Your task to perform on an android device: change the clock display to digital Image 0: 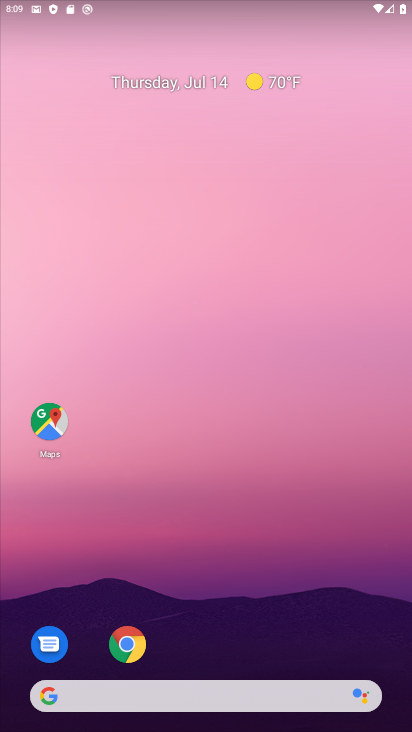
Step 0: click (224, 105)
Your task to perform on an android device: change the clock display to digital Image 1: 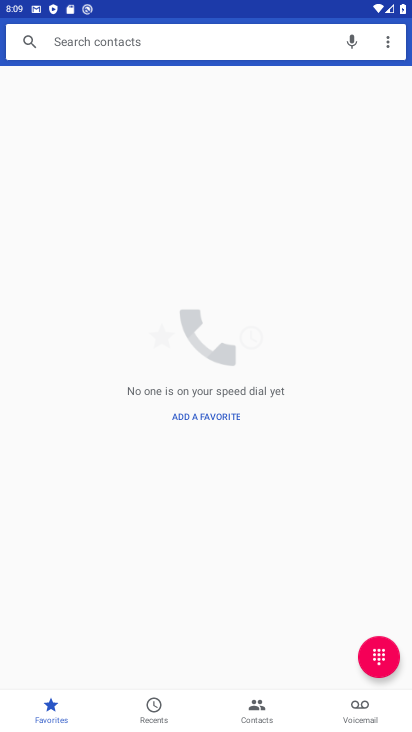
Step 1: press home button
Your task to perform on an android device: change the clock display to digital Image 2: 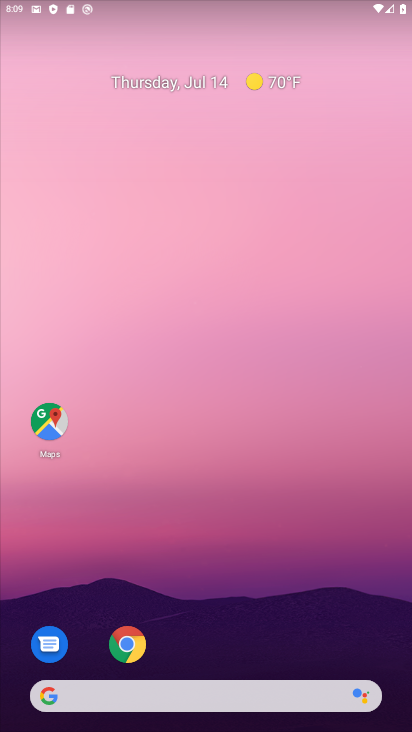
Step 2: drag from (244, 604) to (294, 10)
Your task to perform on an android device: change the clock display to digital Image 3: 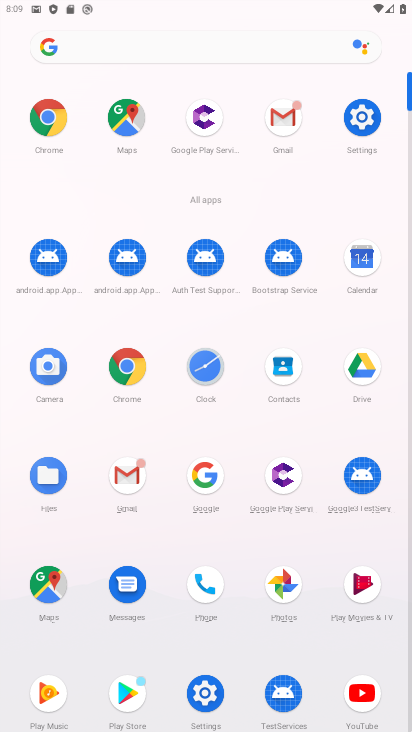
Step 3: click (204, 361)
Your task to perform on an android device: change the clock display to digital Image 4: 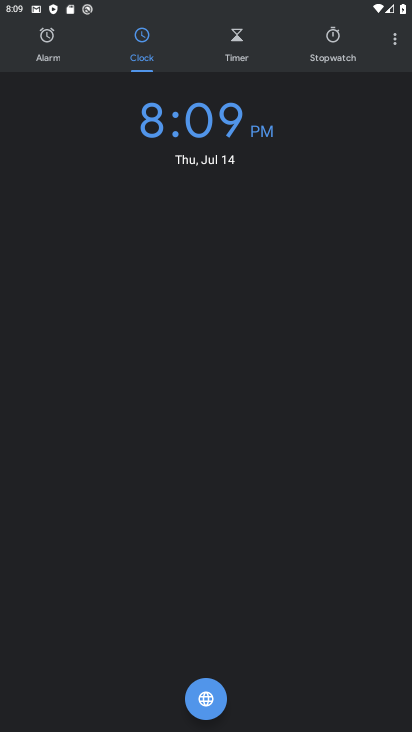
Step 4: click (397, 47)
Your task to perform on an android device: change the clock display to digital Image 5: 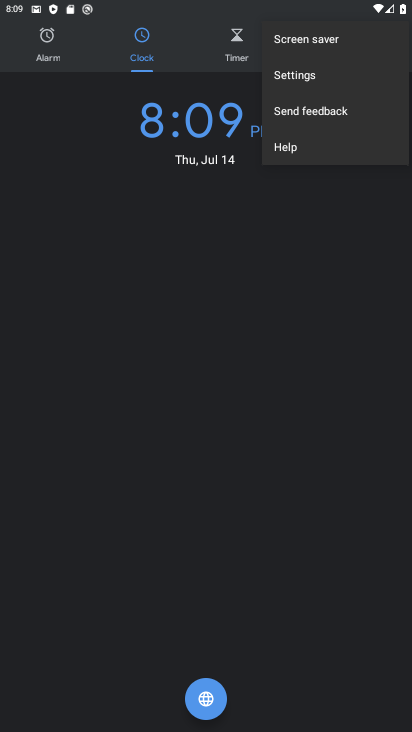
Step 5: click (317, 83)
Your task to perform on an android device: change the clock display to digital Image 6: 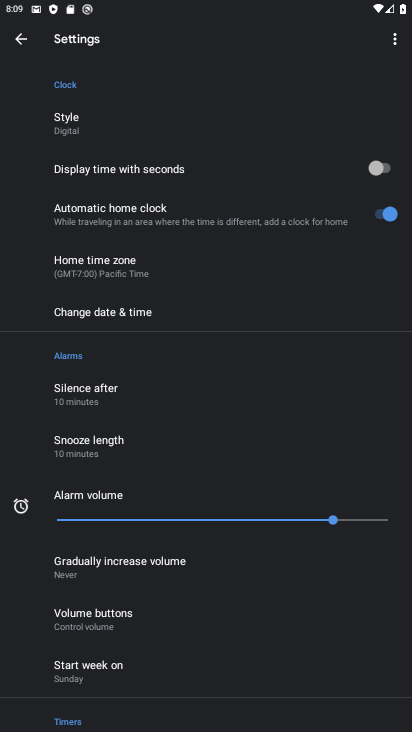
Step 6: click (77, 127)
Your task to perform on an android device: change the clock display to digital Image 7: 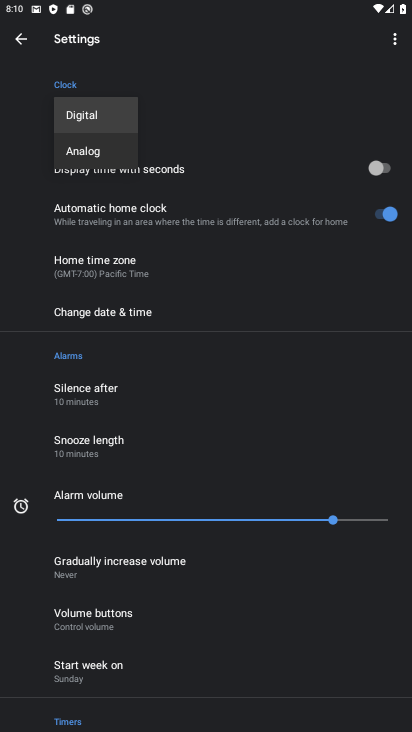
Step 7: click (107, 109)
Your task to perform on an android device: change the clock display to digital Image 8: 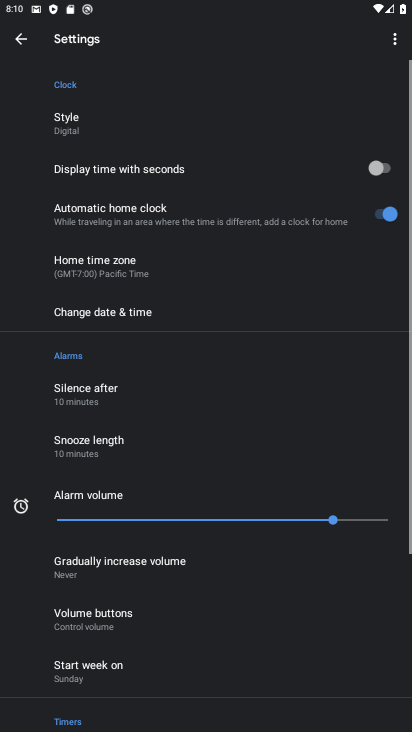
Step 8: task complete